Your task to perform on an android device: remove spam from my inbox in the gmail app Image 0: 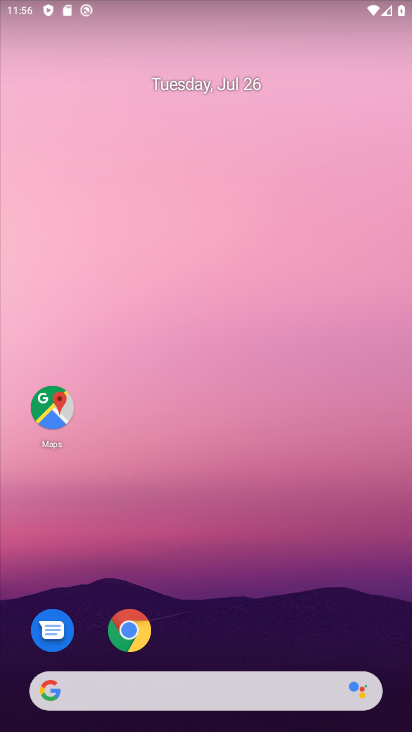
Step 0: drag from (217, 621) to (153, 45)
Your task to perform on an android device: remove spam from my inbox in the gmail app Image 1: 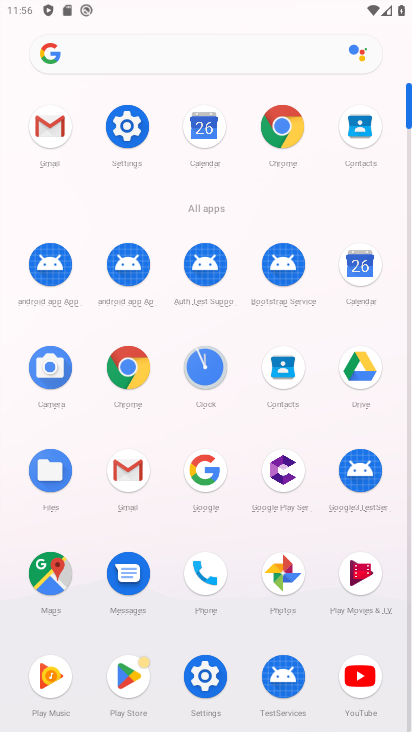
Step 1: click (125, 487)
Your task to perform on an android device: remove spam from my inbox in the gmail app Image 2: 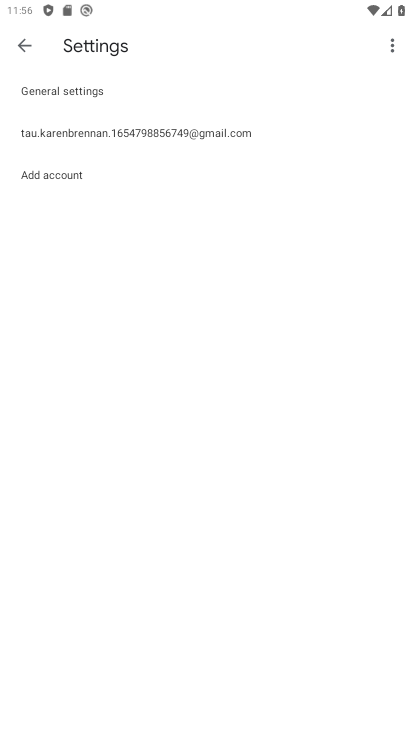
Step 2: click (23, 39)
Your task to perform on an android device: remove spam from my inbox in the gmail app Image 3: 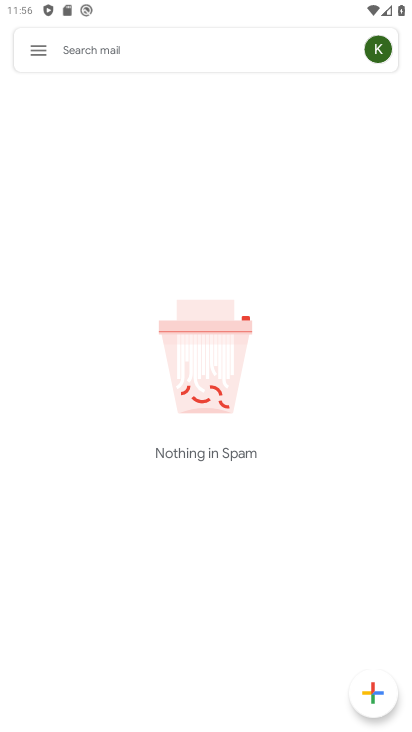
Step 3: click (34, 41)
Your task to perform on an android device: remove spam from my inbox in the gmail app Image 4: 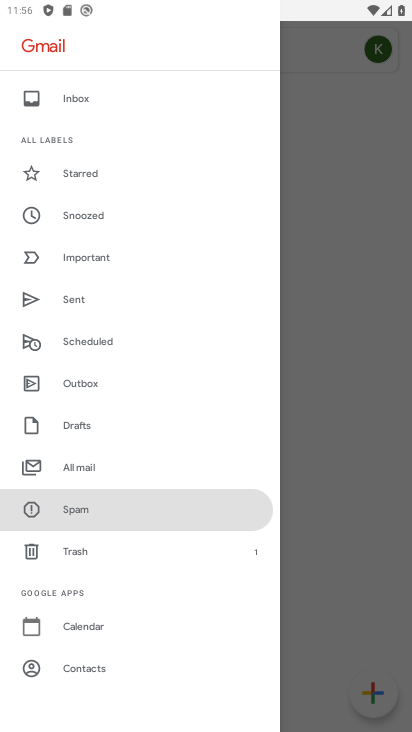
Step 4: click (108, 508)
Your task to perform on an android device: remove spam from my inbox in the gmail app Image 5: 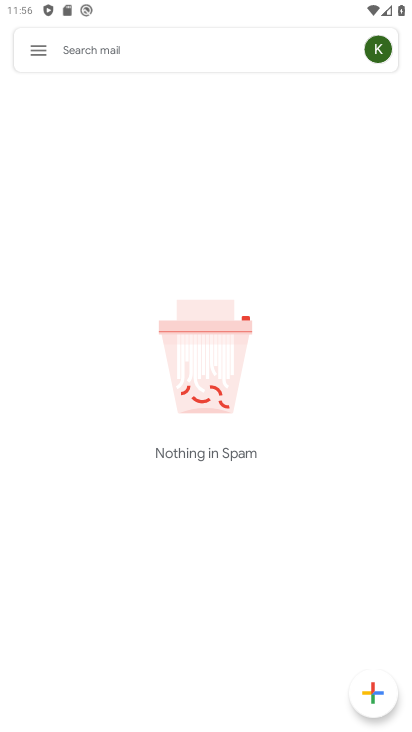
Step 5: task complete